Your task to perform on an android device: turn off javascript in the chrome app Image 0: 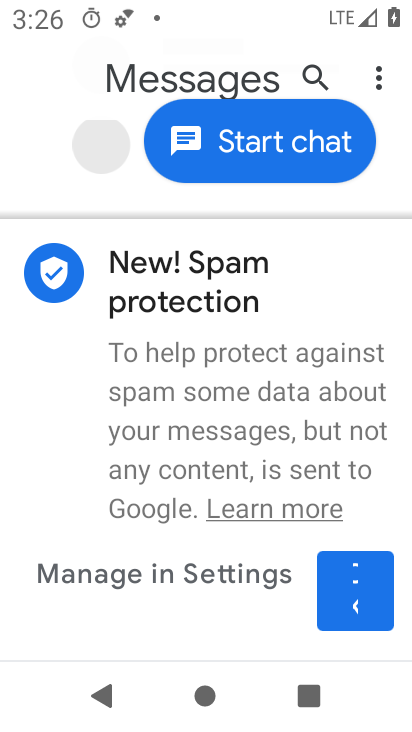
Step 0: press home button
Your task to perform on an android device: turn off javascript in the chrome app Image 1: 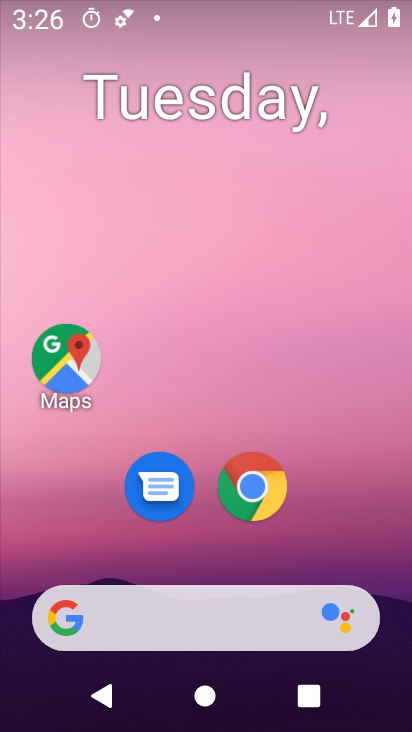
Step 1: drag from (360, 514) to (357, 83)
Your task to perform on an android device: turn off javascript in the chrome app Image 2: 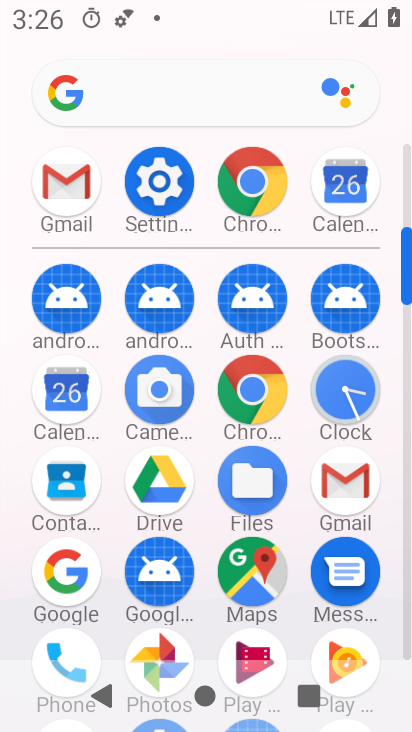
Step 2: click (262, 392)
Your task to perform on an android device: turn off javascript in the chrome app Image 3: 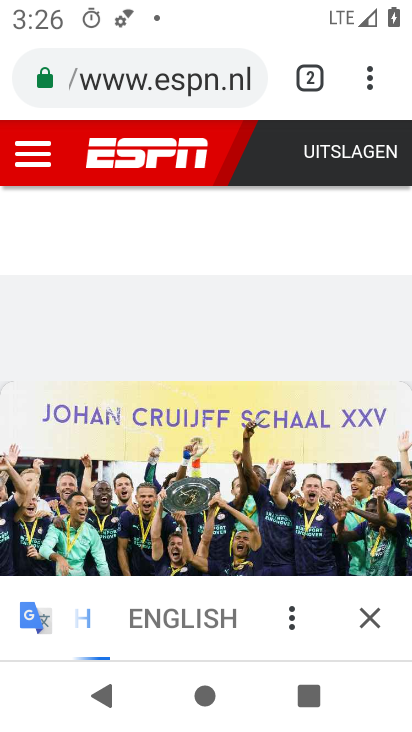
Step 3: click (365, 85)
Your task to perform on an android device: turn off javascript in the chrome app Image 4: 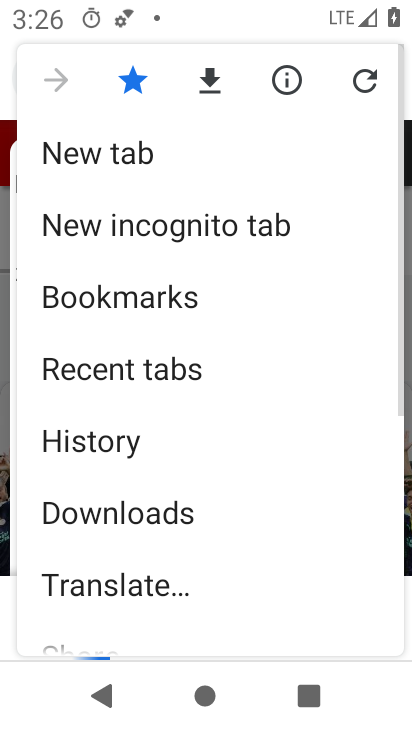
Step 4: drag from (306, 401) to (311, 304)
Your task to perform on an android device: turn off javascript in the chrome app Image 5: 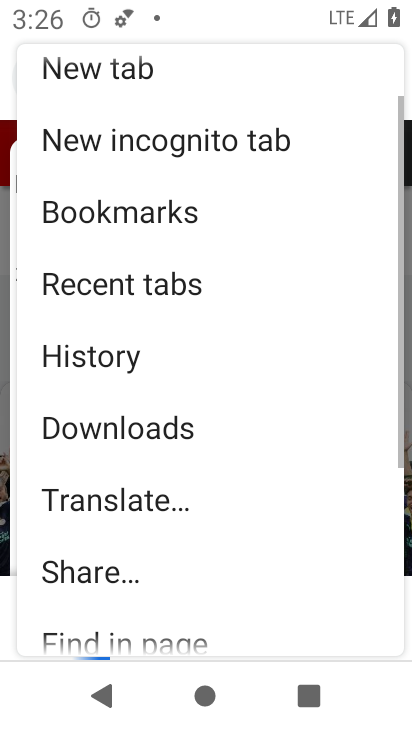
Step 5: drag from (281, 464) to (294, 346)
Your task to perform on an android device: turn off javascript in the chrome app Image 6: 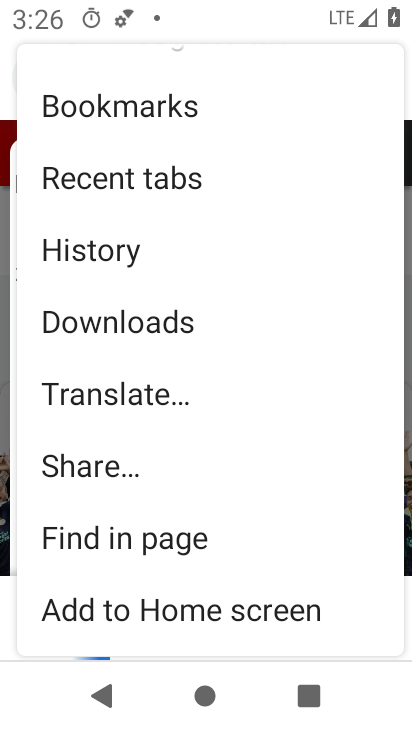
Step 6: drag from (297, 442) to (313, 297)
Your task to perform on an android device: turn off javascript in the chrome app Image 7: 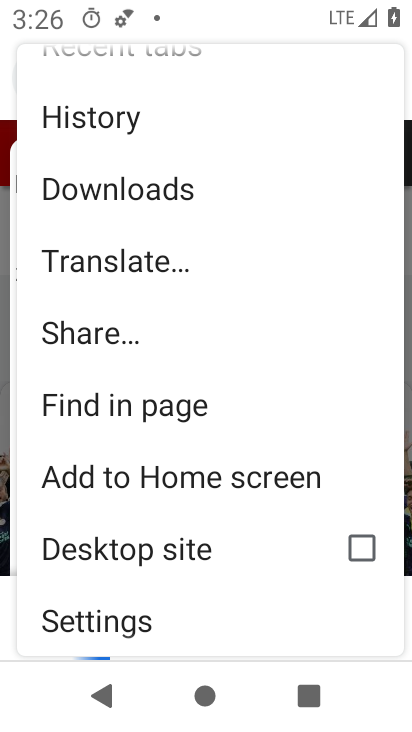
Step 7: drag from (319, 445) to (306, 309)
Your task to perform on an android device: turn off javascript in the chrome app Image 8: 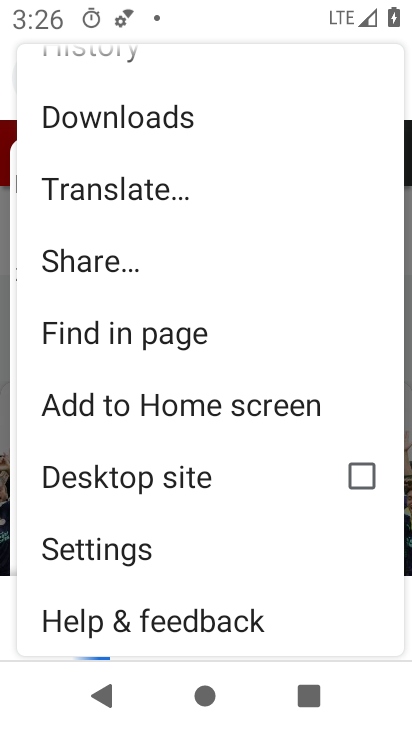
Step 8: click (158, 549)
Your task to perform on an android device: turn off javascript in the chrome app Image 9: 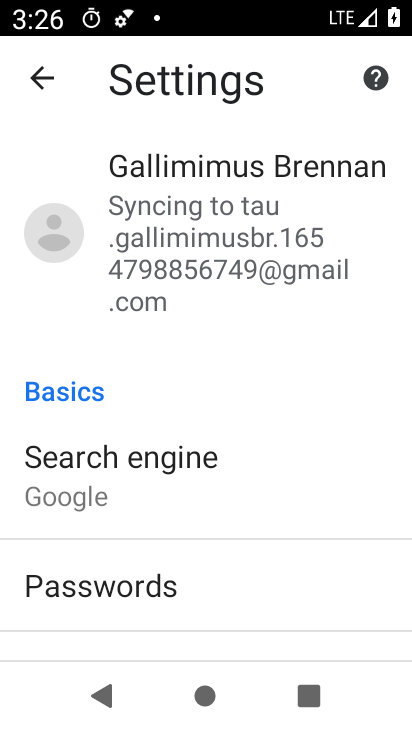
Step 9: drag from (277, 528) to (281, 379)
Your task to perform on an android device: turn off javascript in the chrome app Image 10: 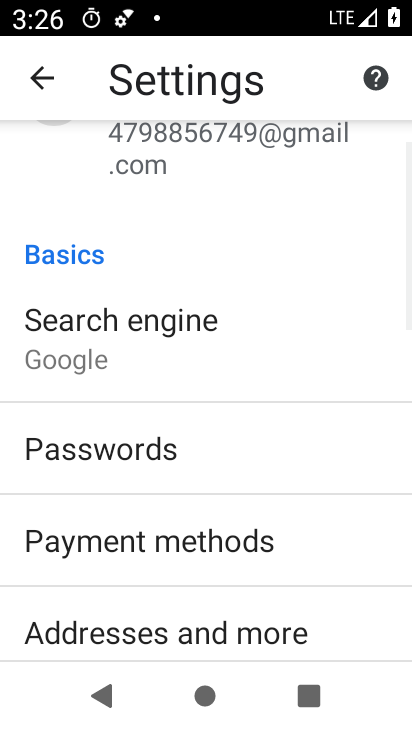
Step 10: drag from (295, 532) to (297, 402)
Your task to perform on an android device: turn off javascript in the chrome app Image 11: 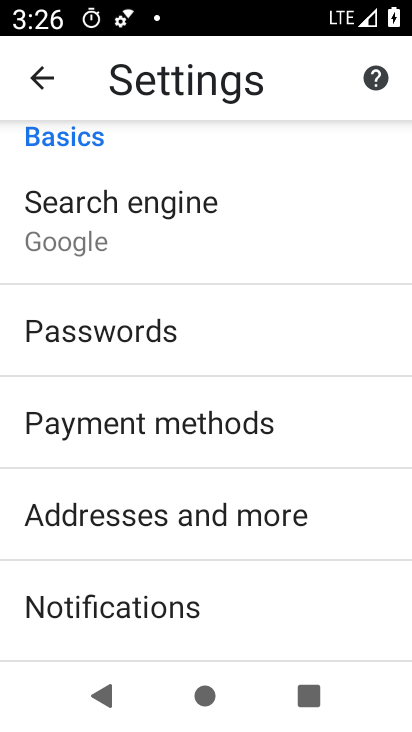
Step 11: drag from (322, 557) to (325, 408)
Your task to perform on an android device: turn off javascript in the chrome app Image 12: 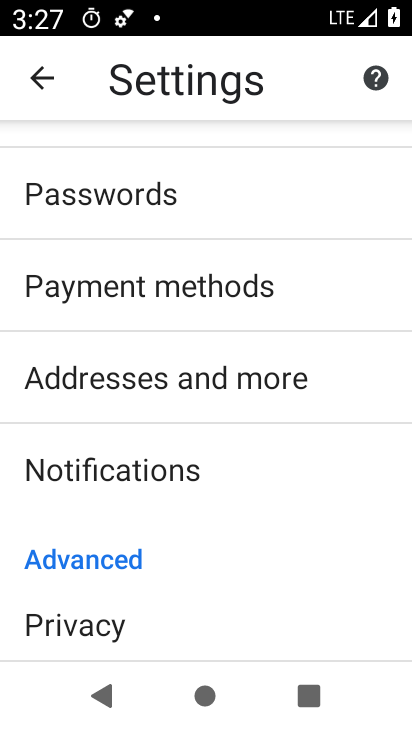
Step 12: drag from (320, 518) to (324, 391)
Your task to perform on an android device: turn off javascript in the chrome app Image 13: 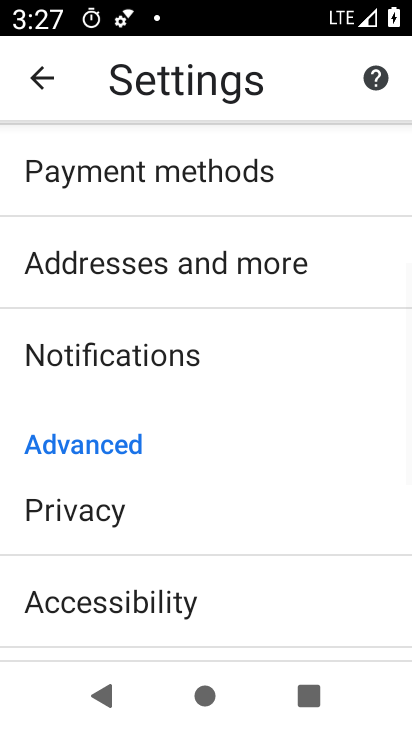
Step 13: drag from (323, 532) to (321, 401)
Your task to perform on an android device: turn off javascript in the chrome app Image 14: 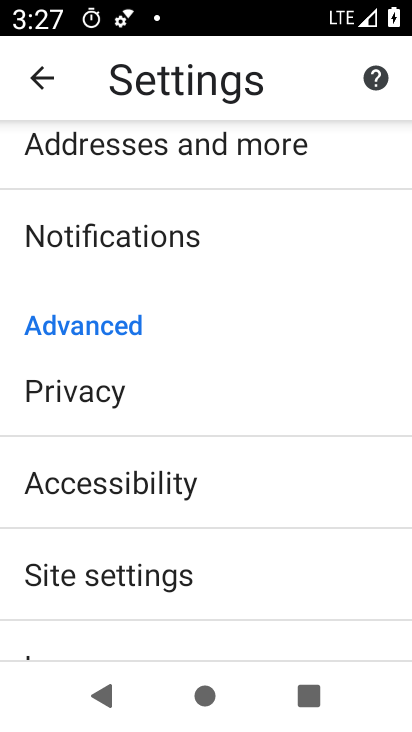
Step 14: drag from (305, 545) to (307, 426)
Your task to perform on an android device: turn off javascript in the chrome app Image 15: 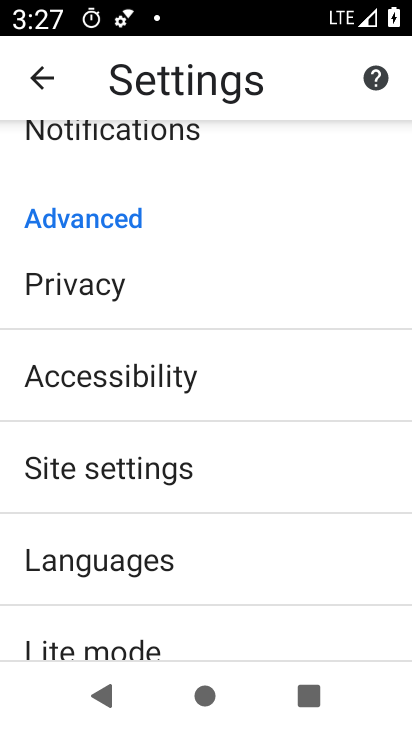
Step 15: drag from (298, 552) to (304, 374)
Your task to perform on an android device: turn off javascript in the chrome app Image 16: 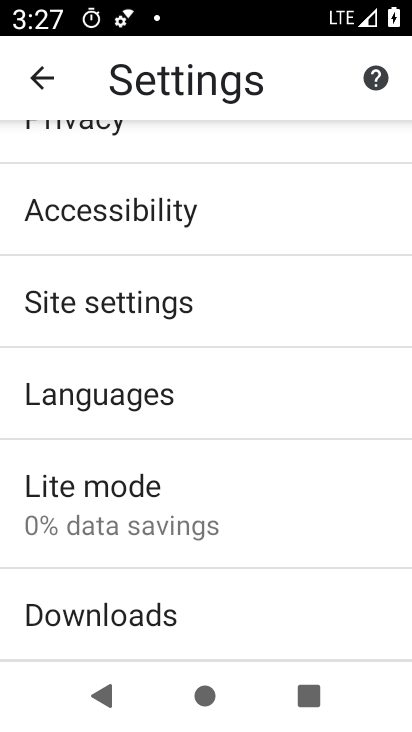
Step 16: drag from (301, 551) to (304, 389)
Your task to perform on an android device: turn off javascript in the chrome app Image 17: 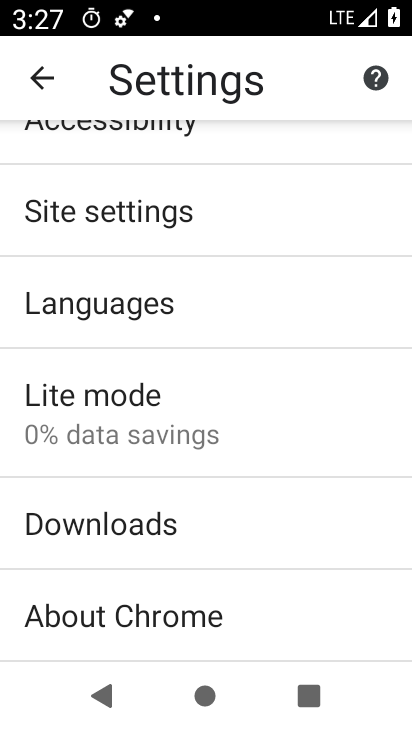
Step 17: drag from (316, 222) to (316, 354)
Your task to perform on an android device: turn off javascript in the chrome app Image 18: 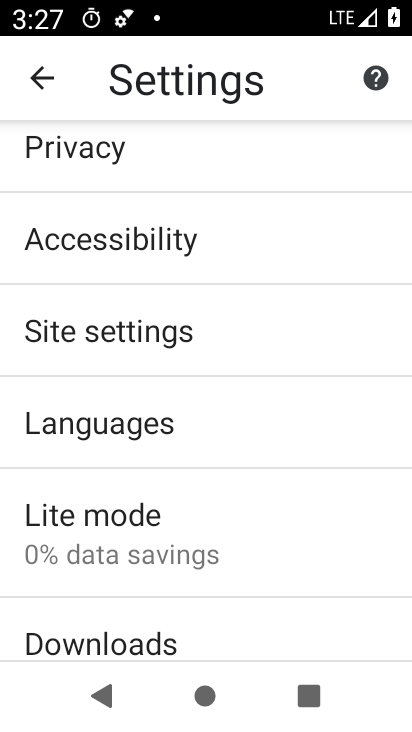
Step 18: drag from (303, 198) to (302, 340)
Your task to perform on an android device: turn off javascript in the chrome app Image 19: 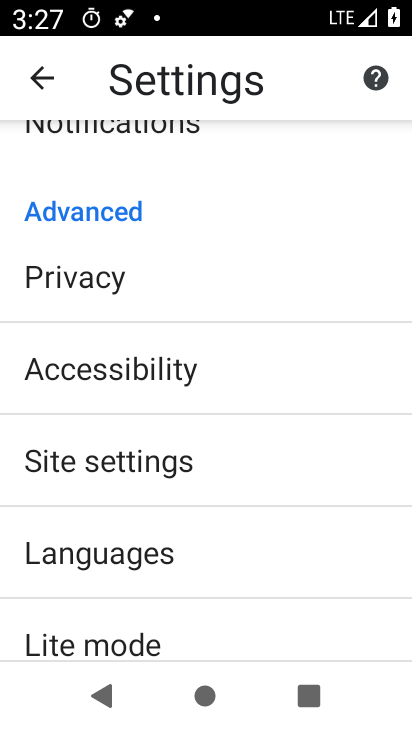
Step 19: drag from (284, 251) to (291, 340)
Your task to perform on an android device: turn off javascript in the chrome app Image 20: 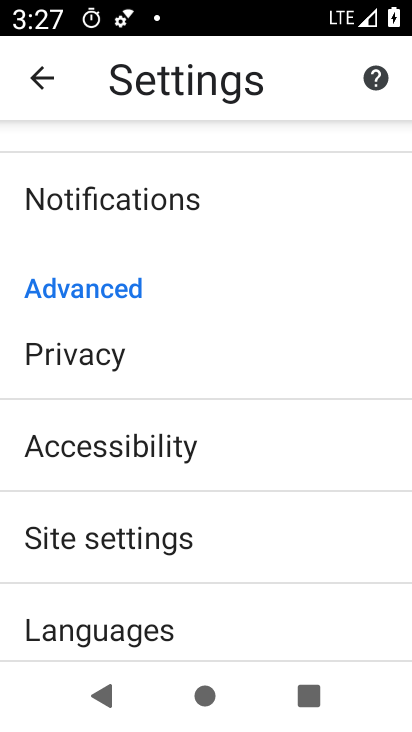
Step 20: drag from (282, 527) to (286, 393)
Your task to perform on an android device: turn off javascript in the chrome app Image 21: 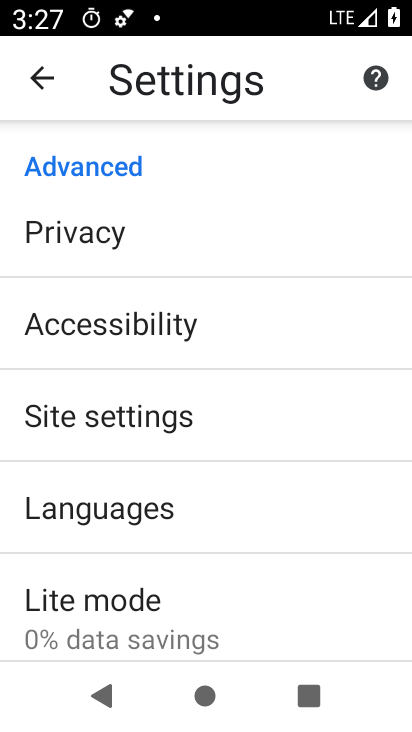
Step 21: click (238, 419)
Your task to perform on an android device: turn off javascript in the chrome app Image 22: 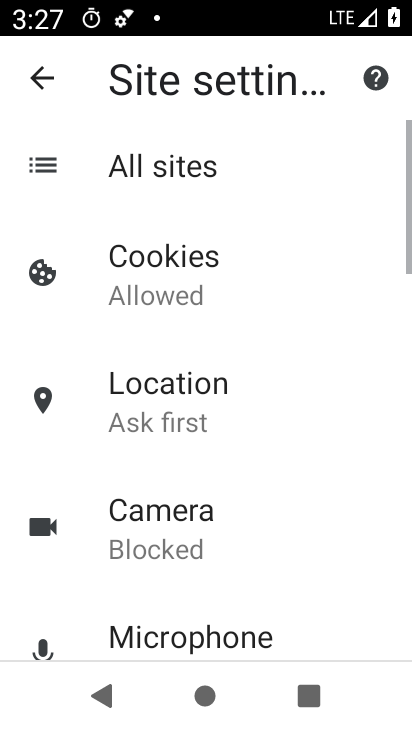
Step 22: drag from (279, 525) to (285, 422)
Your task to perform on an android device: turn off javascript in the chrome app Image 23: 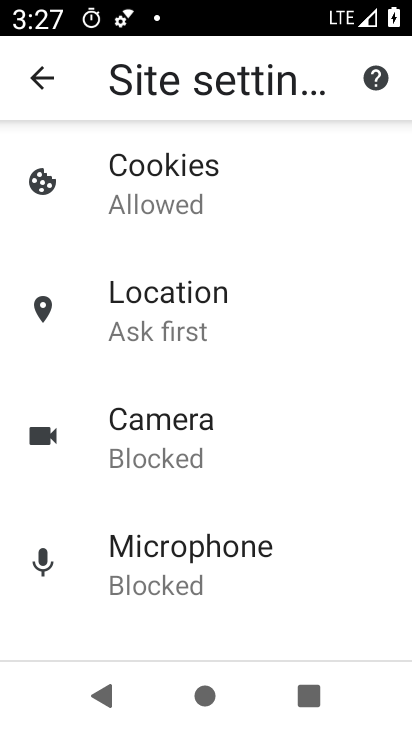
Step 23: drag from (307, 244) to (309, 353)
Your task to perform on an android device: turn off javascript in the chrome app Image 24: 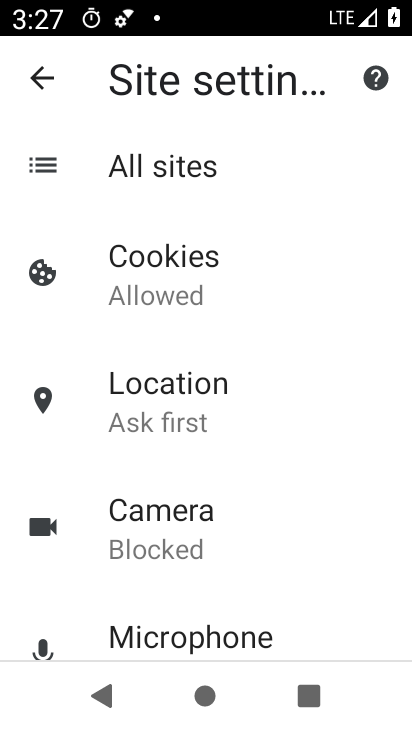
Step 24: drag from (290, 428) to (287, 298)
Your task to perform on an android device: turn off javascript in the chrome app Image 25: 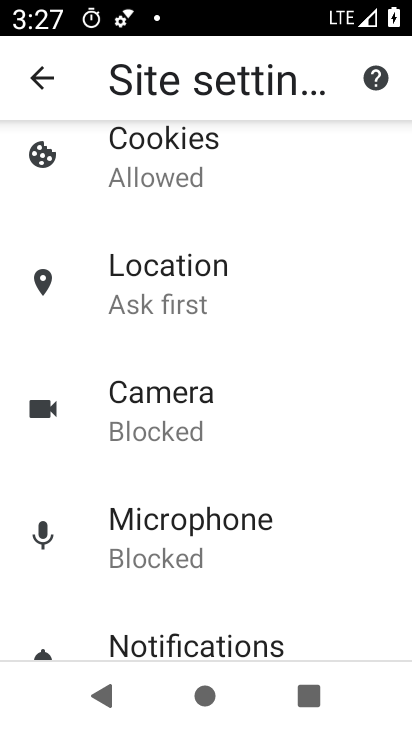
Step 25: drag from (310, 251) to (317, 367)
Your task to perform on an android device: turn off javascript in the chrome app Image 26: 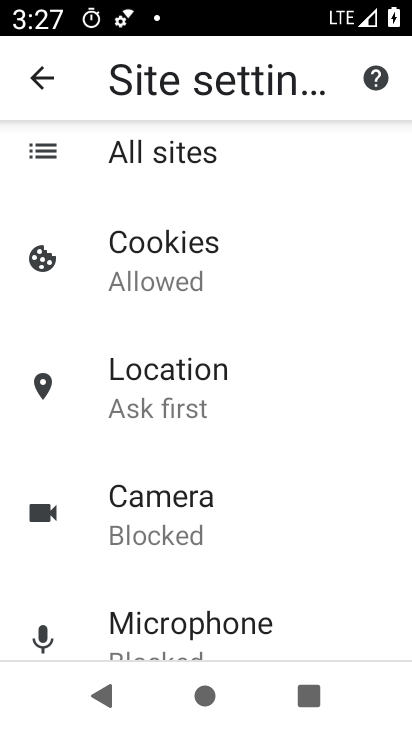
Step 26: drag from (318, 204) to (338, 316)
Your task to perform on an android device: turn off javascript in the chrome app Image 27: 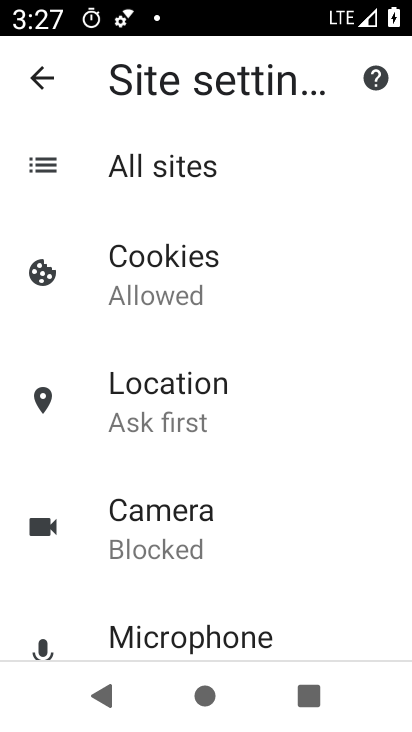
Step 27: drag from (278, 483) to (280, 344)
Your task to perform on an android device: turn off javascript in the chrome app Image 28: 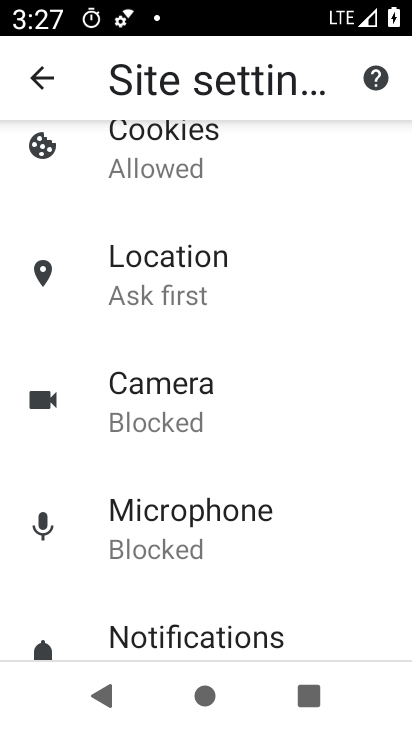
Step 28: drag from (299, 529) to (290, 394)
Your task to perform on an android device: turn off javascript in the chrome app Image 29: 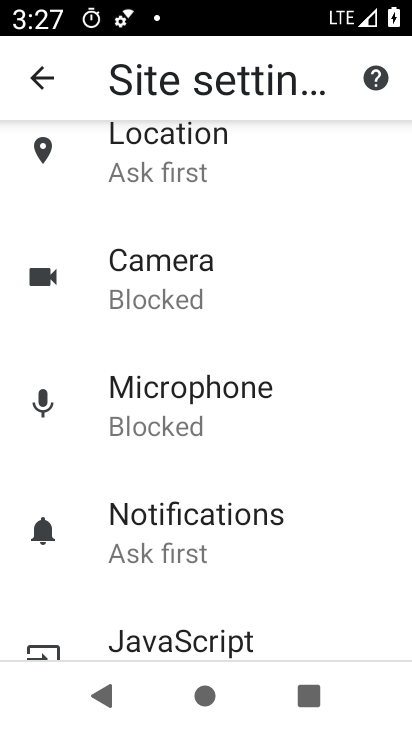
Step 29: drag from (291, 568) to (295, 409)
Your task to perform on an android device: turn off javascript in the chrome app Image 30: 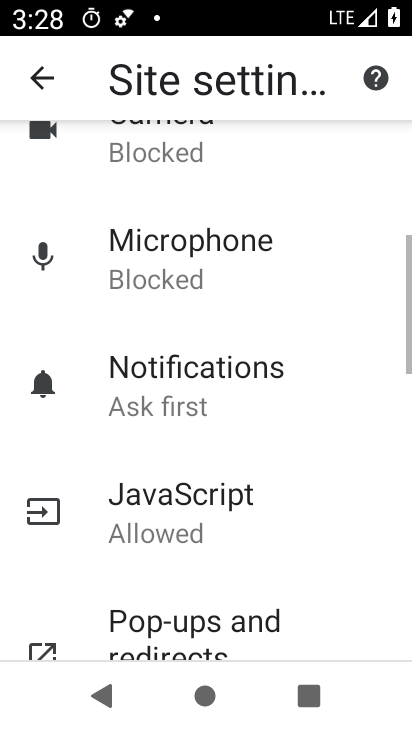
Step 30: click (271, 514)
Your task to perform on an android device: turn off javascript in the chrome app Image 31: 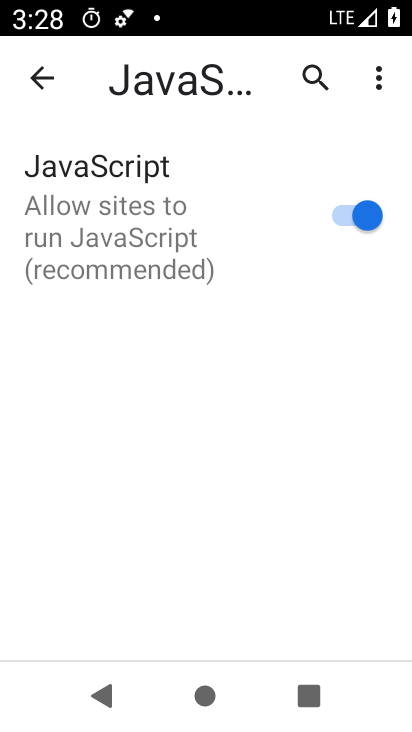
Step 31: click (359, 222)
Your task to perform on an android device: turn off javascript in the chrome app Image 32: 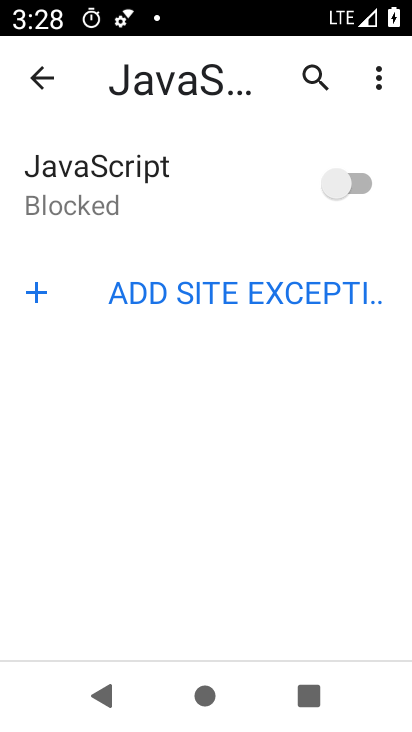
Step 32: task complete